Your task to perform on an android device: toggle translation in the chrome app Image 0: 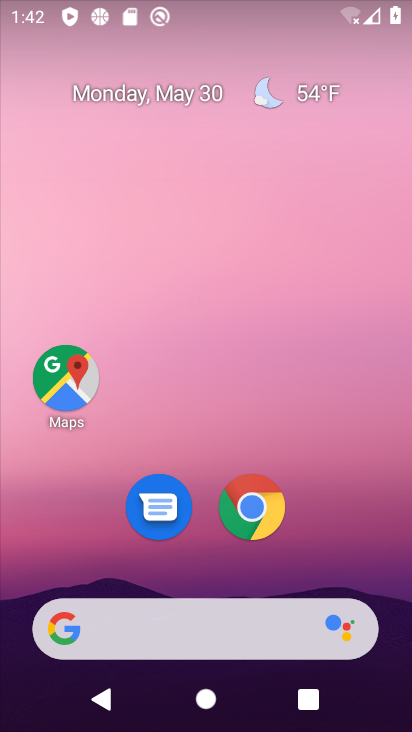
Step 0: drag from (381, 653) to (290, 22)
Your task to perform on an android device: toggle translation in the chrome app Image 1: 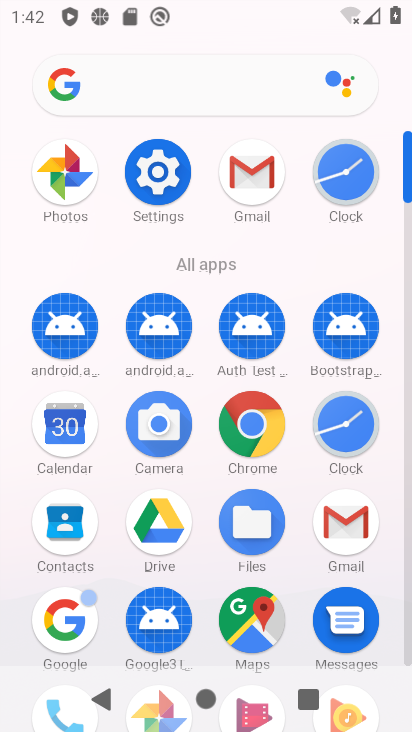
Step 1: click (241, 444)
Your task to perform on an android device: toggle translation in the chrome app Image 2: 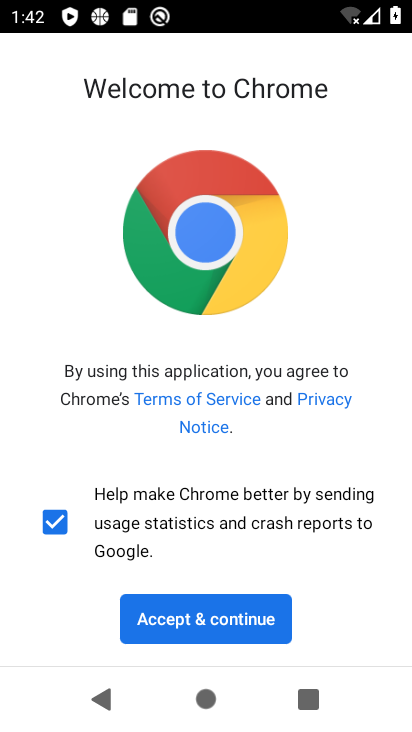
Step 2: click (209, 609)
Your task to perform on an android device: toggle translation in the chrome app Image 3: 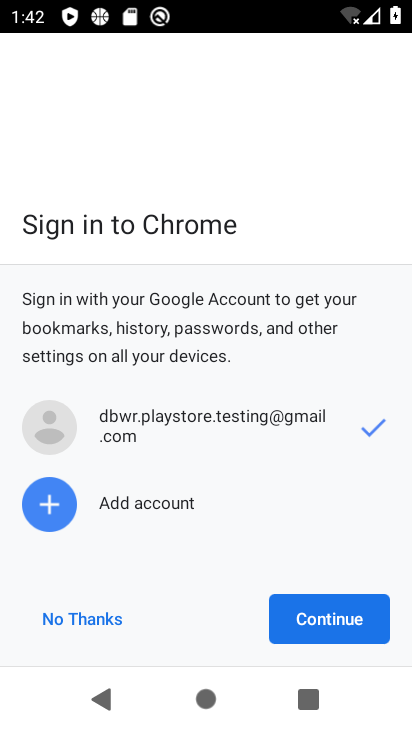
Step 3: click (310, 628)
Your task to perform on an android device: toggle translation in the chrome app Image 4: 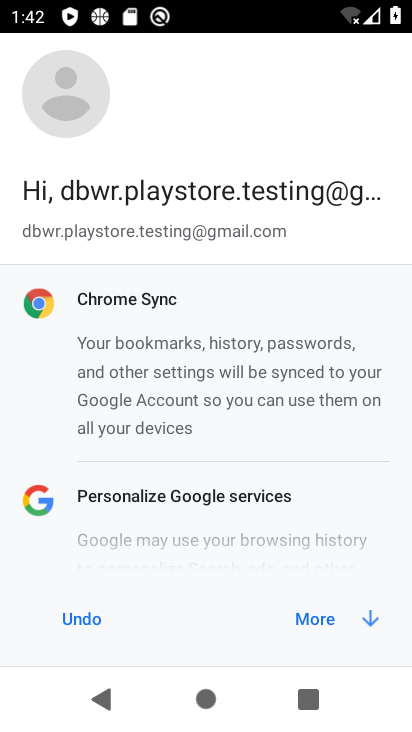
Step 4: click (310, 628)
Your task to perform on an android device: toggle translation in the chrome app Image 5: 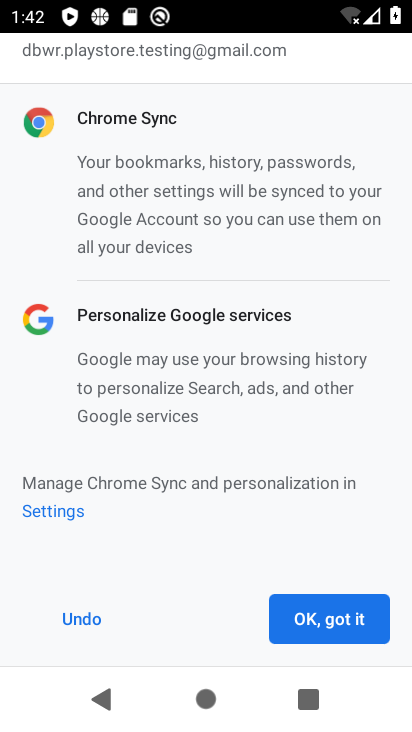
Step 5: click (310, 628)
Your task to perform on an android device: toggle translation in the chrome app Image 6: 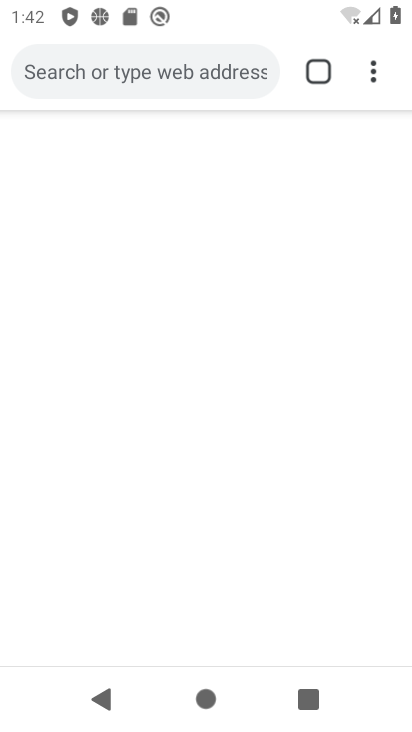
Step 6: click (310, 628)
Your task to perform on an android device: toggle translation in the chrome app Image 7: 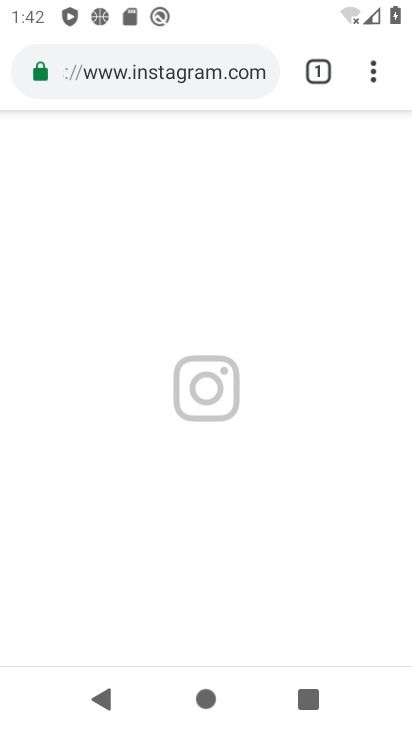
Step 7: press back button
Your task to perform on an android device: toggle translation in the chrome app Image 8: 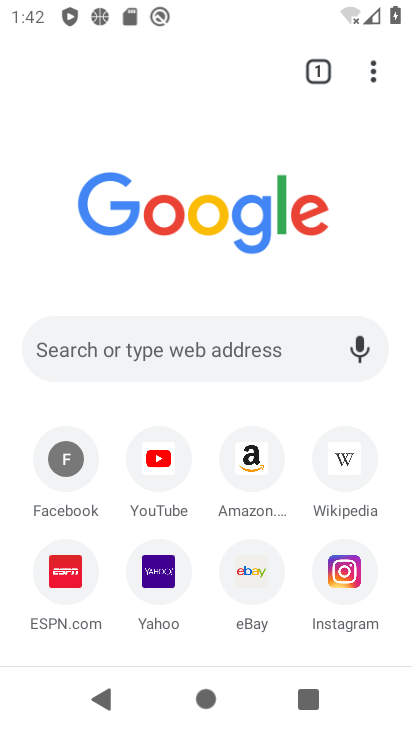
Step 8: click (364, 70)
Your task to perform on an android device: toggle translation in the chrome app Image 9: 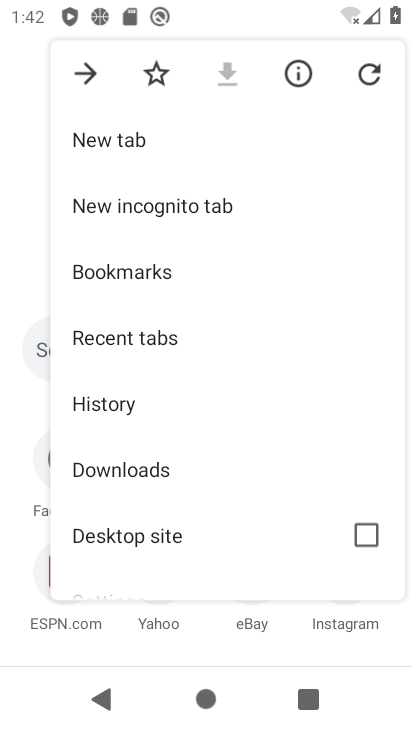
Step 9: drag from (147, 527) to (161, 141)
Your task to perform on an android device: toggle translation in the chrome app Image 10: 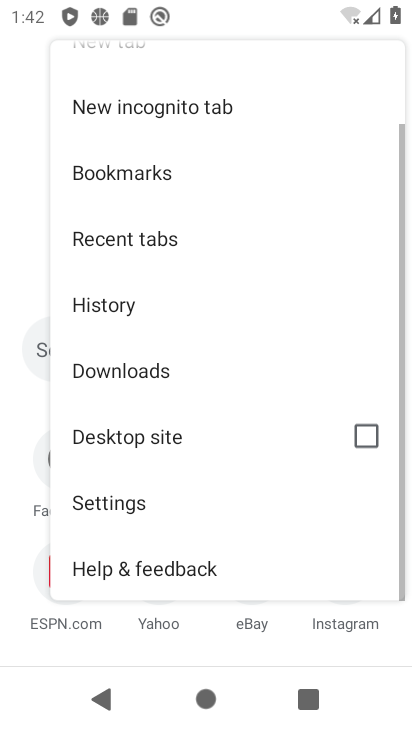
Step 10: click (129, 484)
Your task to perform on an android device: toggle translation in the chrome app Image 11: 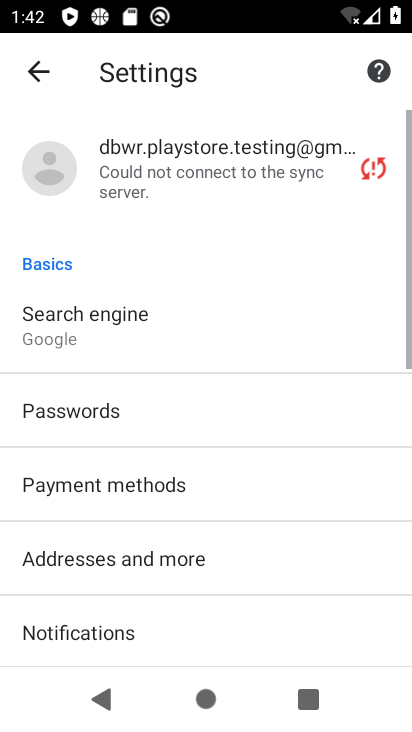
Step 11: drag from (143, 581) to (203, 208)
Your task to perform on an android device: toggle translation in the chrome app Image 12: 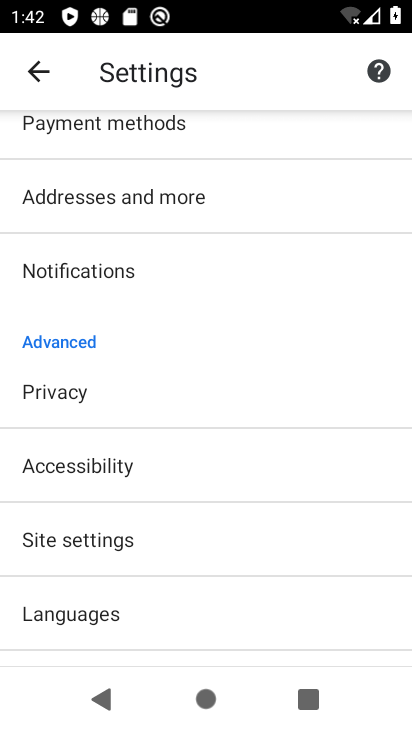
Step 12: click (121, 639)
Your task to perform on an android device: toggle translation in the chrome app Image 13: 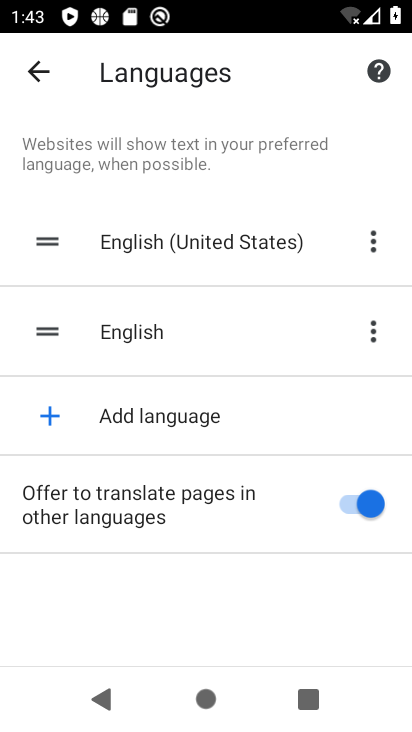
Step 13: click (362, 517)
Your task to perform on an android device: toggle translation in the chrome app Image 14: 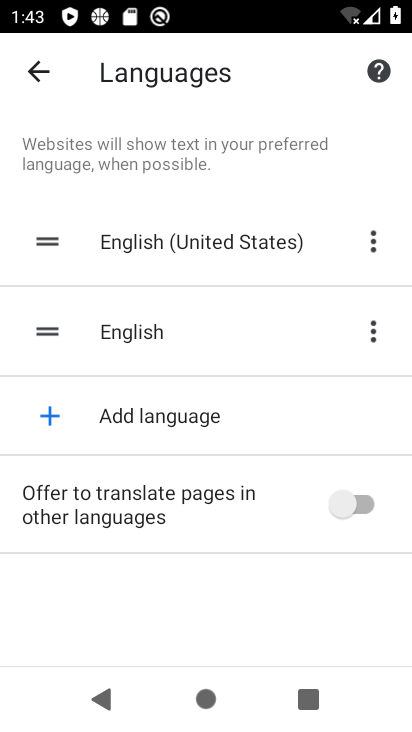
Step 14: task complete